Your task to perform on an android device: Open settings Image 0: 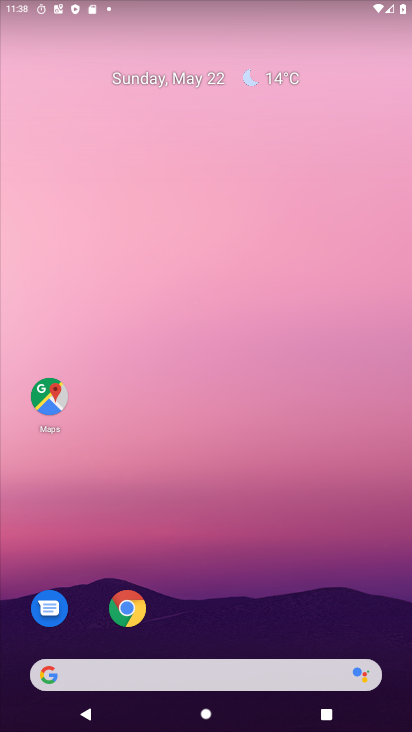
Step 0: drag from (224, 716) to (222, 74)
Your task to perform on an android device: Open settings Image 1: 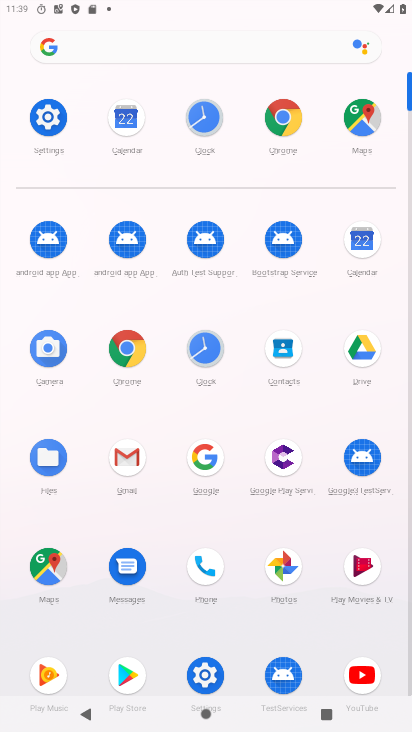
Step 1: click (50, 115)
Your task to perform on an android device: Open settings Image 2: 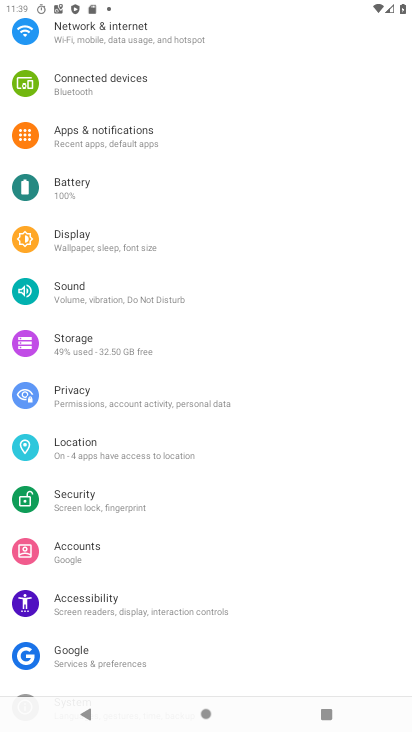
Step 2: task complete